Your task to perform on an android device: Open Google Chrome and open the bookmarks view Image 0: 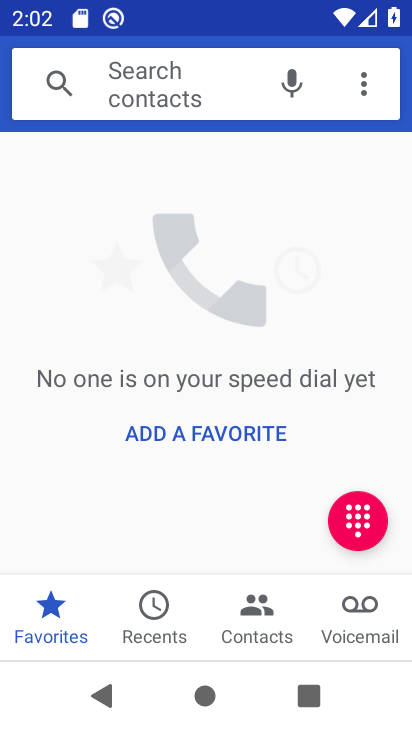
Step 0: press back button
Your task to perform on an android device: Open Google Chrome and open the bookmarks view Image 1: 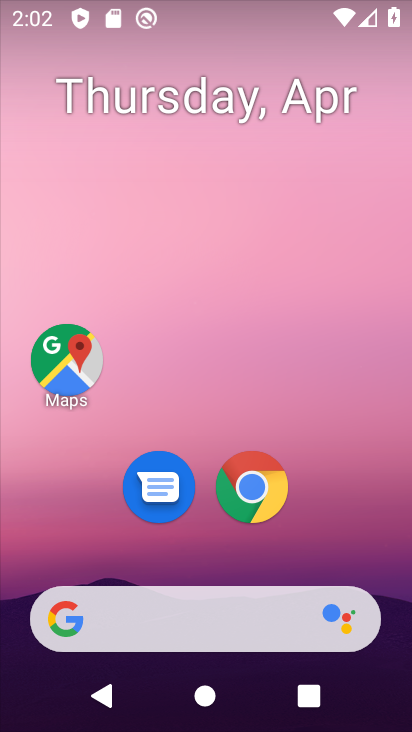
Step 1: click (252, 494)
Your task to perform on an android device: Open Google Chrome and open the bookmarks view Image 2: 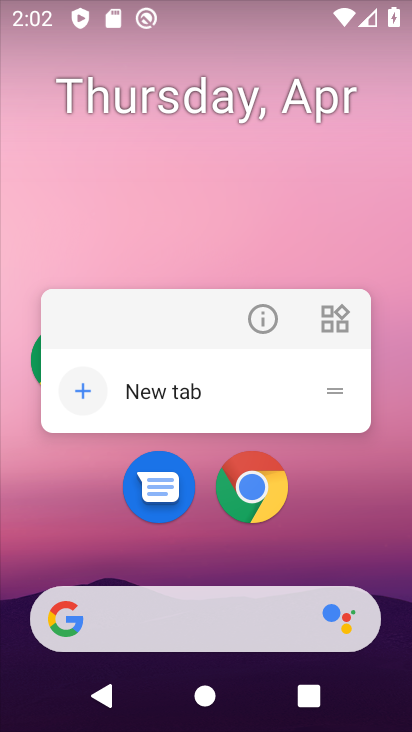
Step 2: click (266, 488)
Your task to perform on an android device: Open Google Chrome and open the bookmarks view Image 3: 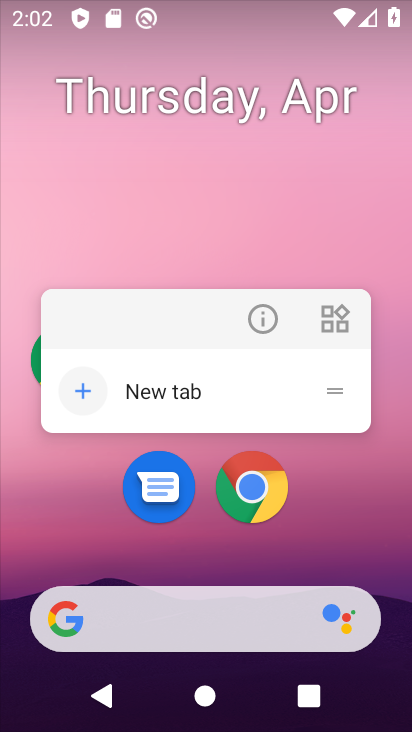
Step 3: click (261, 500)
Your task to perform on an android device: Open Google Chrome and open the bookmarks view Image 4: 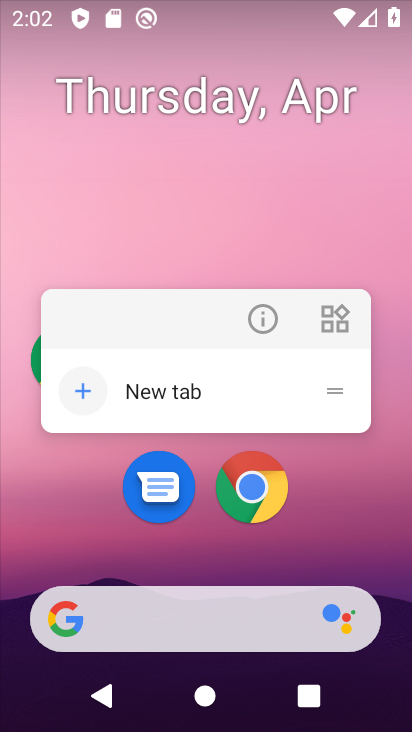
Step 4: click (269, 487)
Your task to perform on an android device: Open Google Chrome and open the bookmarks view Image 5: 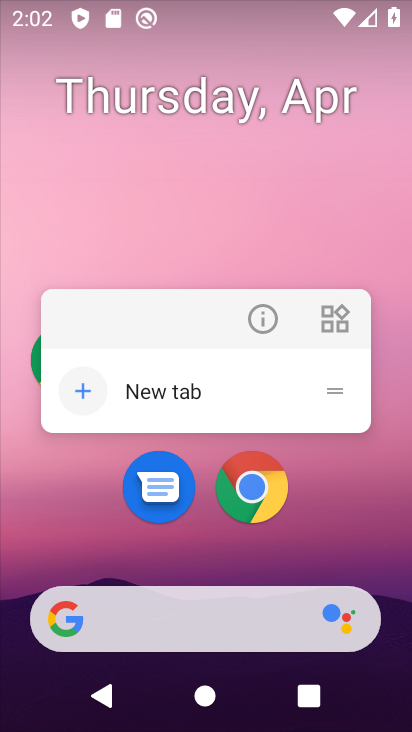
Step 5: click (268, 486)
Your task to perform on an android device: Open Google Chrome and open the bookmarks view Image 6: 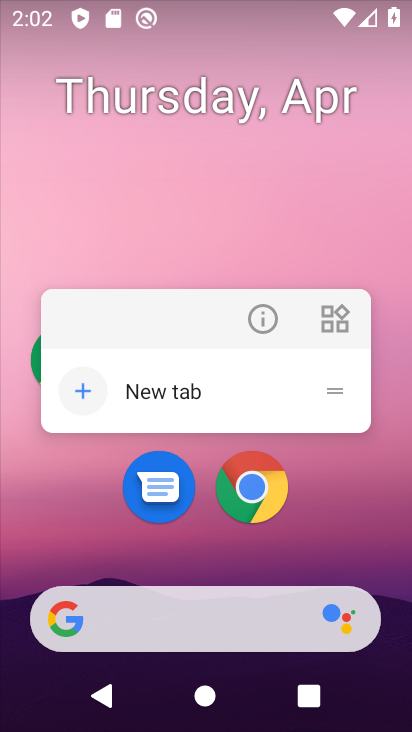
Step 6: click (257, 482)
Your task to perform on an android device: Open Google Chrome and open the bookmarks view Image 7: 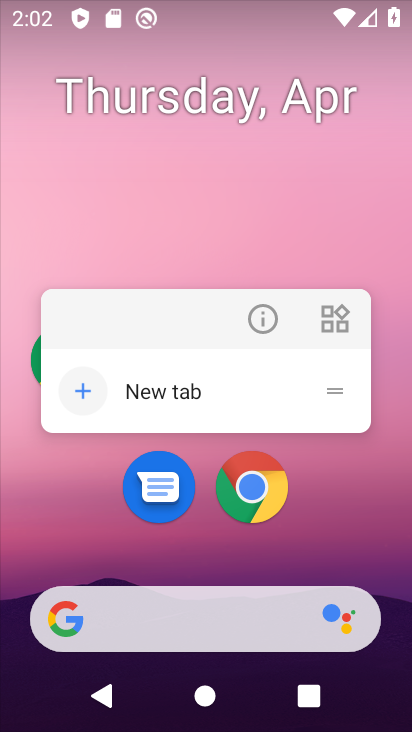
Step 7: click (258, 488)
Your task to perform on an android device: Open Google Chrome and open the bookmarks view Image 8: 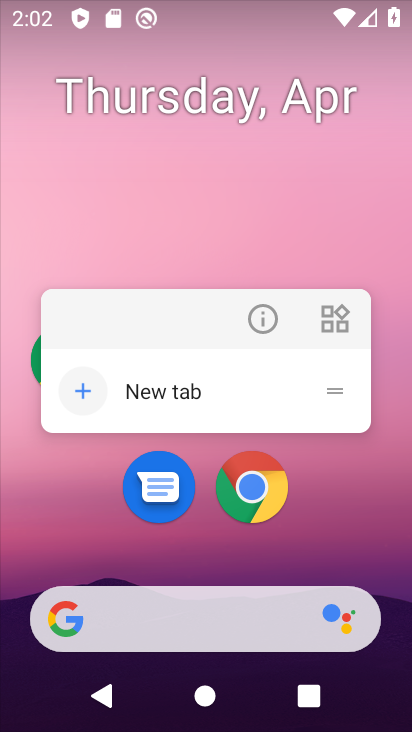
Step 8: click (257, 493)
Your task to perform on an android device: Open Google Chrome and open the bookmarks view Image 9: 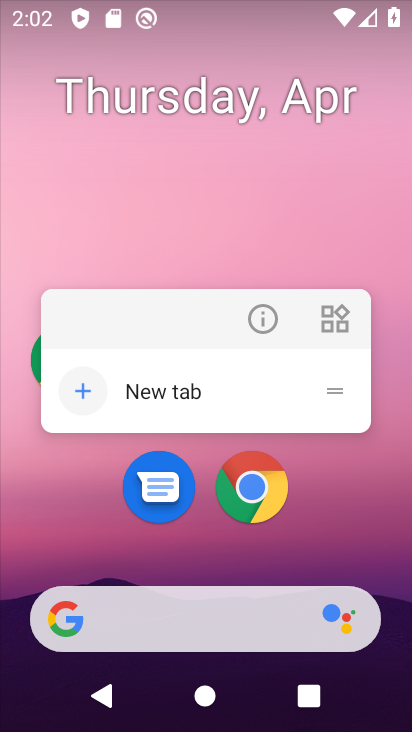
Step 9: click (257, 493)
Your task to perform on an android device: Open Google Chrome and open the bookmarks view Image 10: 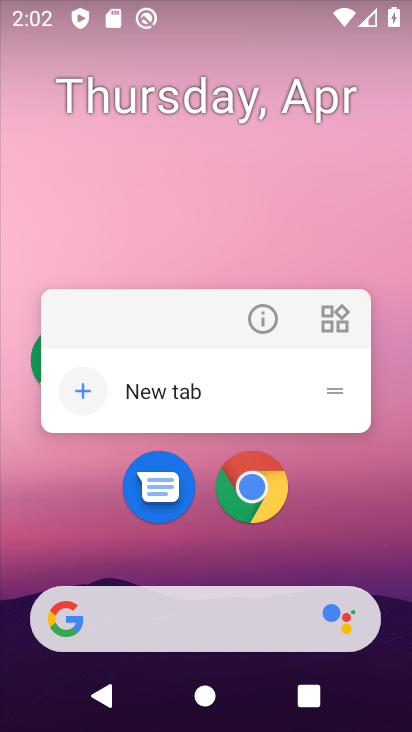
Step 10: click (261, 486)
Your task to perform on an android device: Open Google Chrome and open the bookmarks view Image 11: 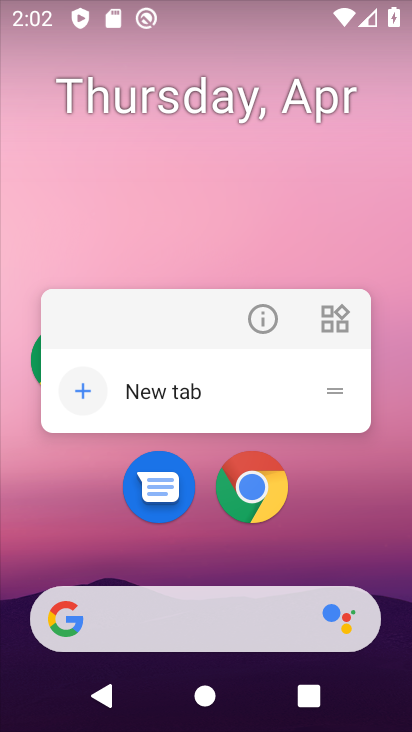
Step 11: click (261, 464)
Your task to perform on an android device: Open Google Chrome and open the bookmarks view Image 12: 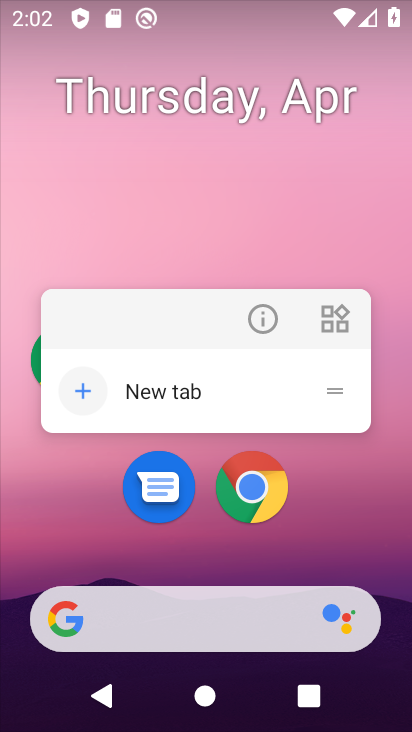
Step 12: click (247, 485)
Your task to perform on an android device: Open Google Chrome and open the bookmarks view Image 13: 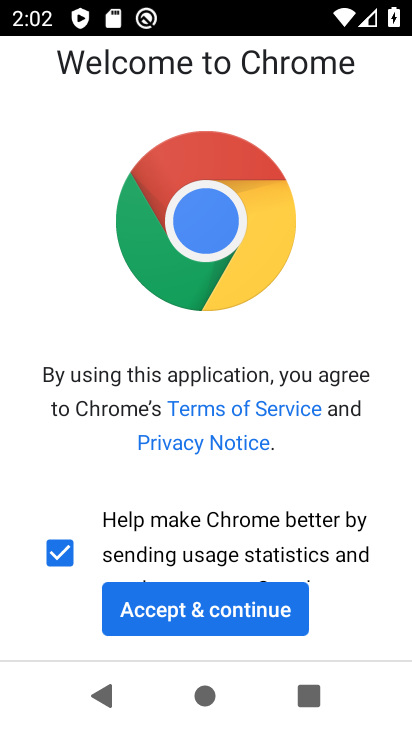
Step 13: click (210, 615)
Your task to perform on an android device: Open Google Chrome and open the bookmarks view Image 14: 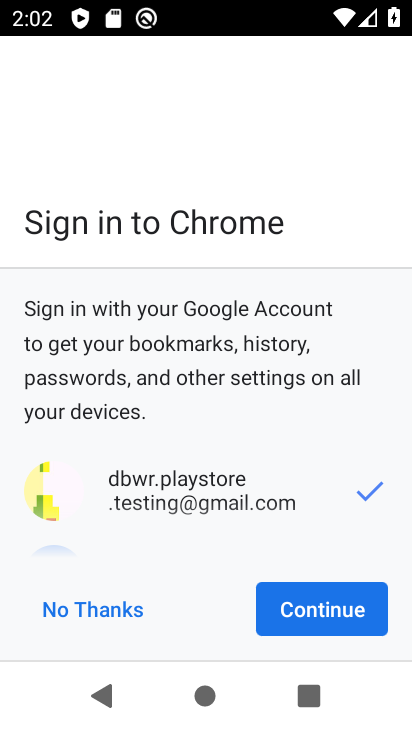
Step 14: click (349, 595)
Your task to perform on an android device: Open Google Chrome and open the bookmarks view Image 15: 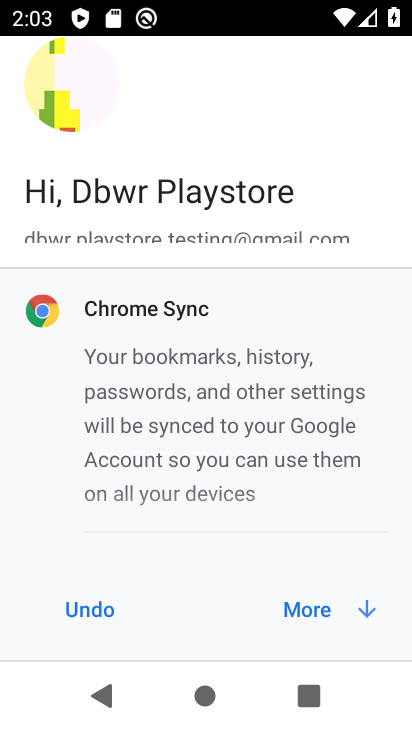
Step 15: click (333, 608)
Your task to perform on an android device: Open Google Chrome and open the bookmarks view Image 16: 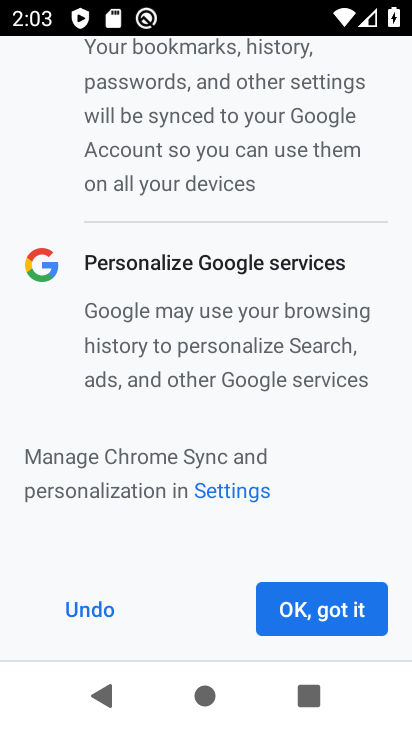
Step 16: click (333, 608)
Your task to perform on an android device: Open Google Chrome and open the bookmarks view Image 17: 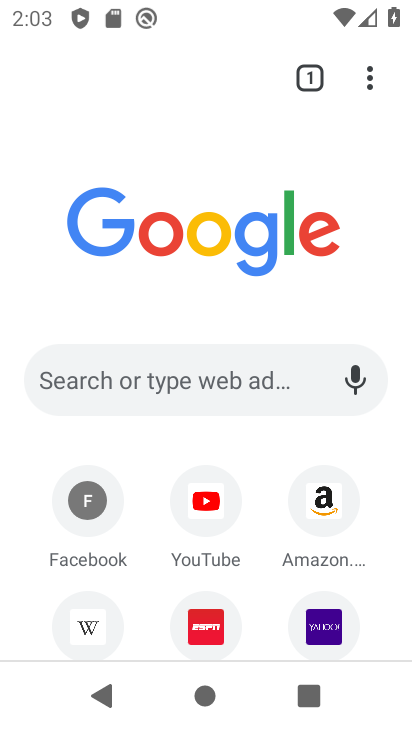
Step 17: task complete